Your task to perform on an android device: Search for "razer deathadder" on costco.com, select the first entry, and add it to the cart. Image 0: 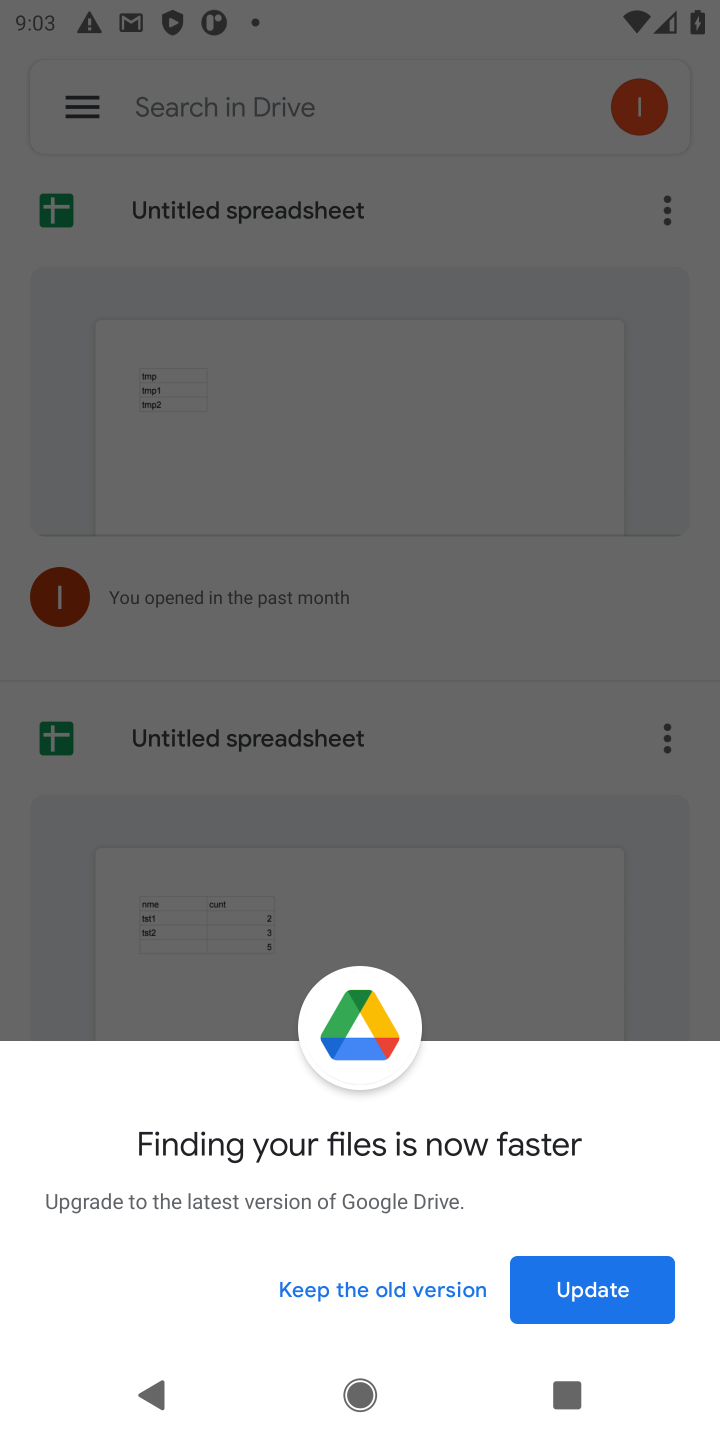
Step 0: press home button
Your task to perform on an android device: Search for "razer deathadder" on costco.com, select the first entry, and add it to the cart. Image 1: 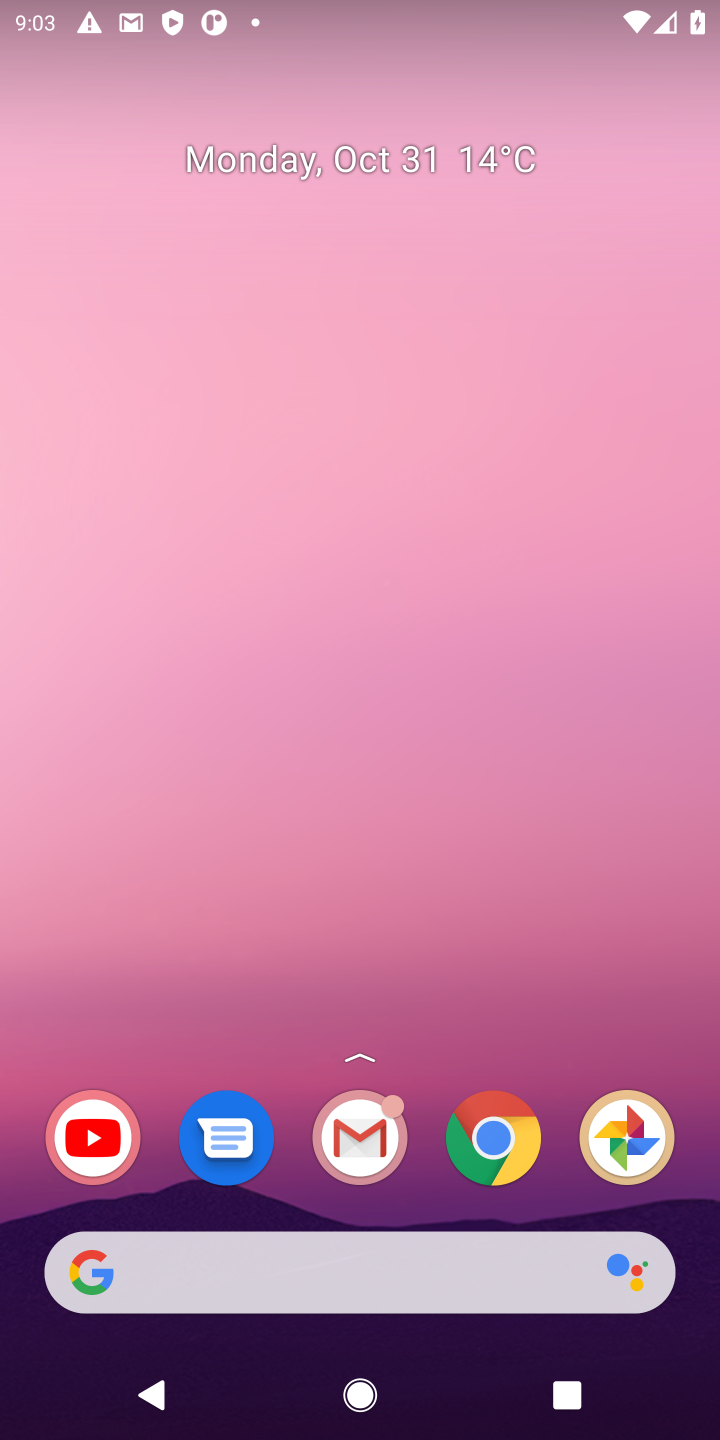
Step 1: click (515, 1153)
Your task to perform on an android device: Search for "razer deathadder" on costco.com, select the first entry, and add it to the cart. Image 2: 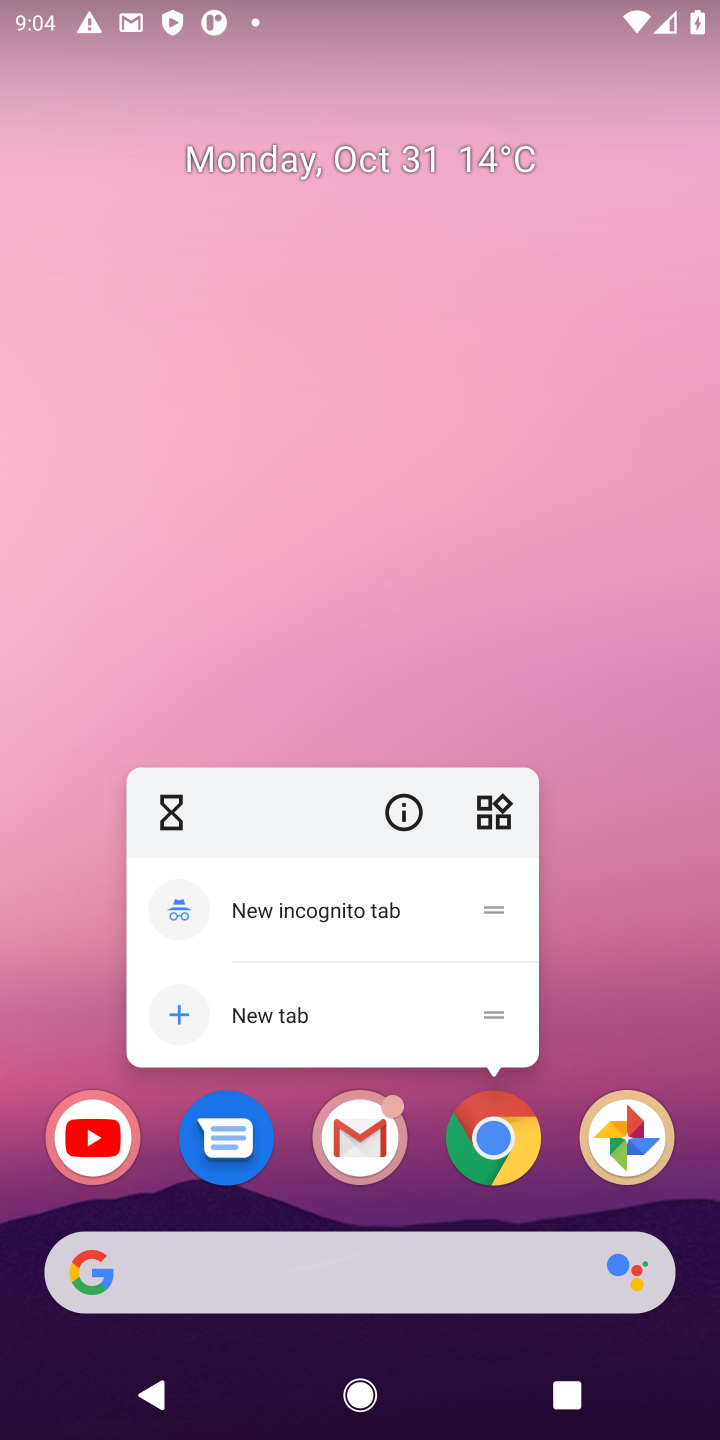
Step 2: click (531, 1159)
Your task to perform on an android device: Search for "razer deathadder" on costco.com, select the first entry, and add it to the cart. Image 3: 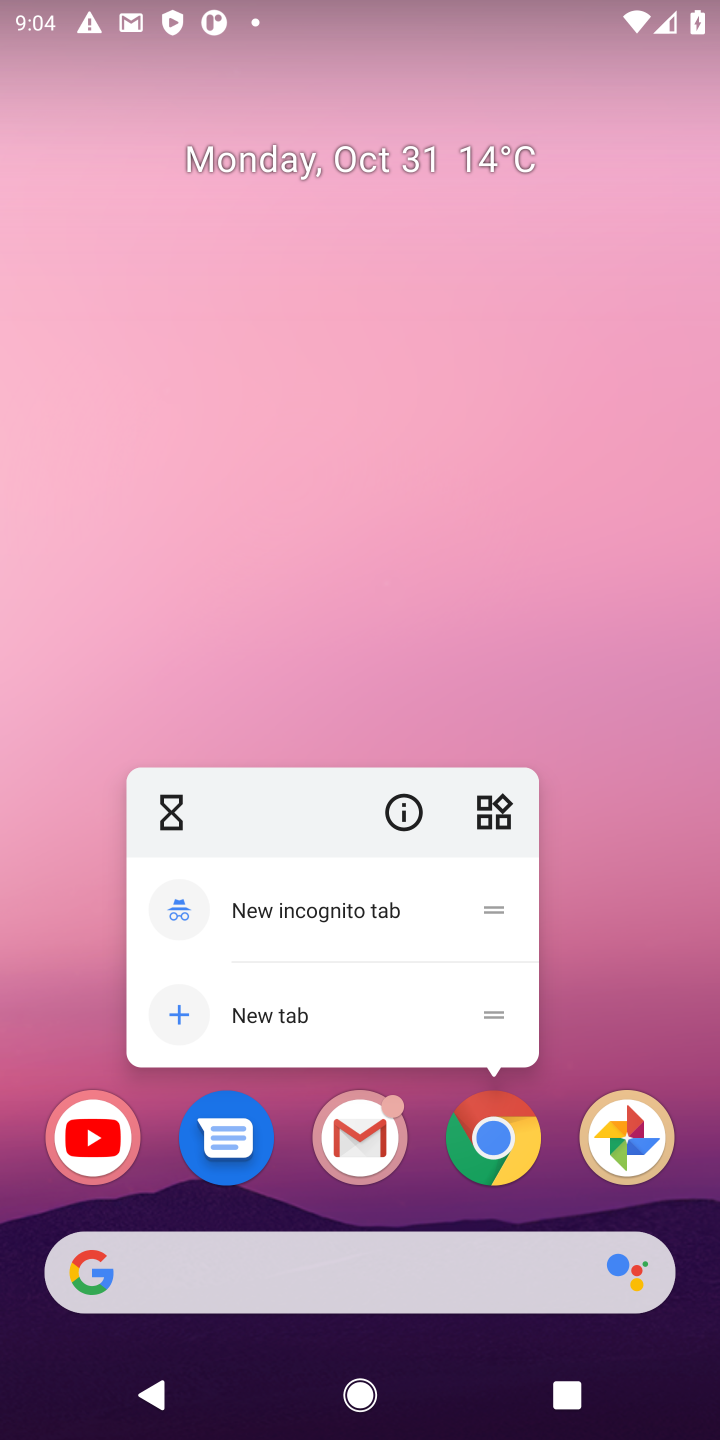
Step 3: click (449, 1146)
Your task to perform on an android device: Search for "razer deathadder" on costco.com, select the first entry, and add it to the cart. Image 4: 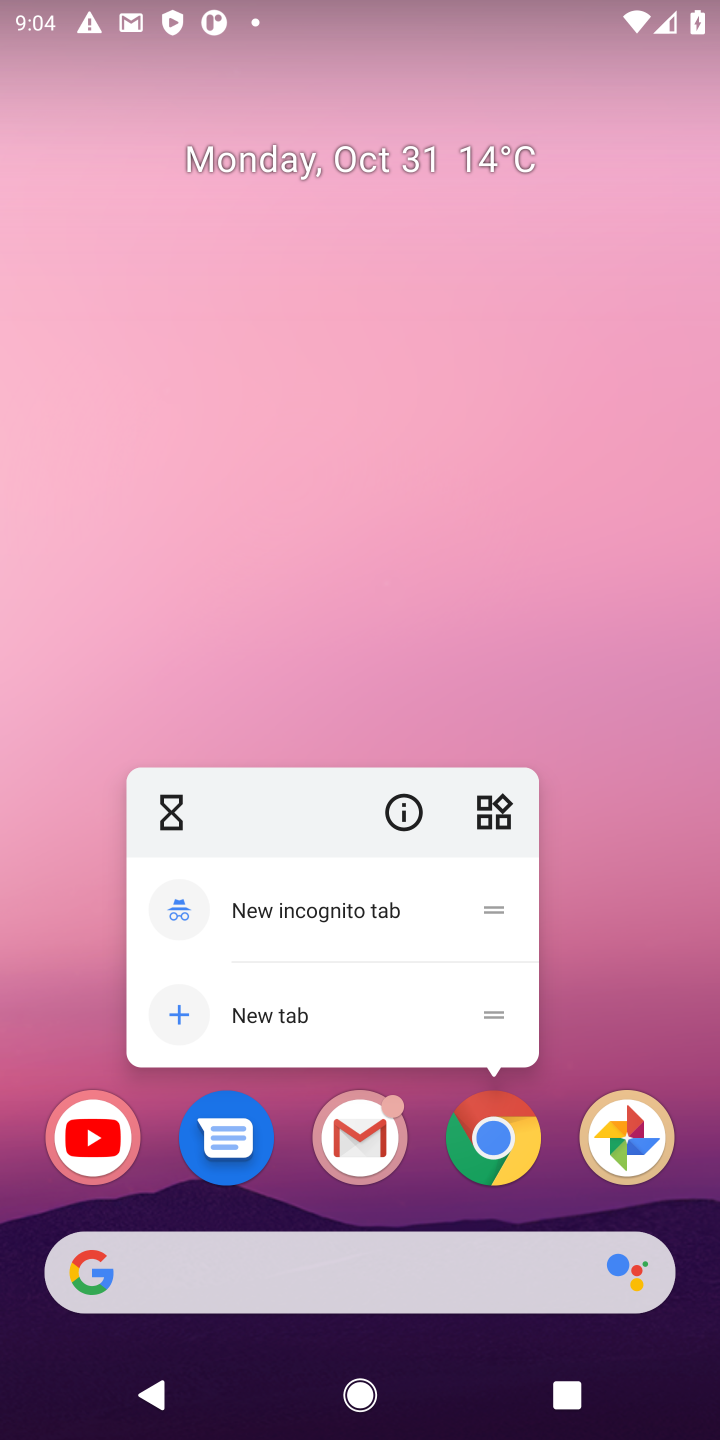
Step 4: click (513, 1125)
Your task to perform on an android device: Search for "razer deathadder" on costco.com, select the first entry, and add it to the cart. Image 5: 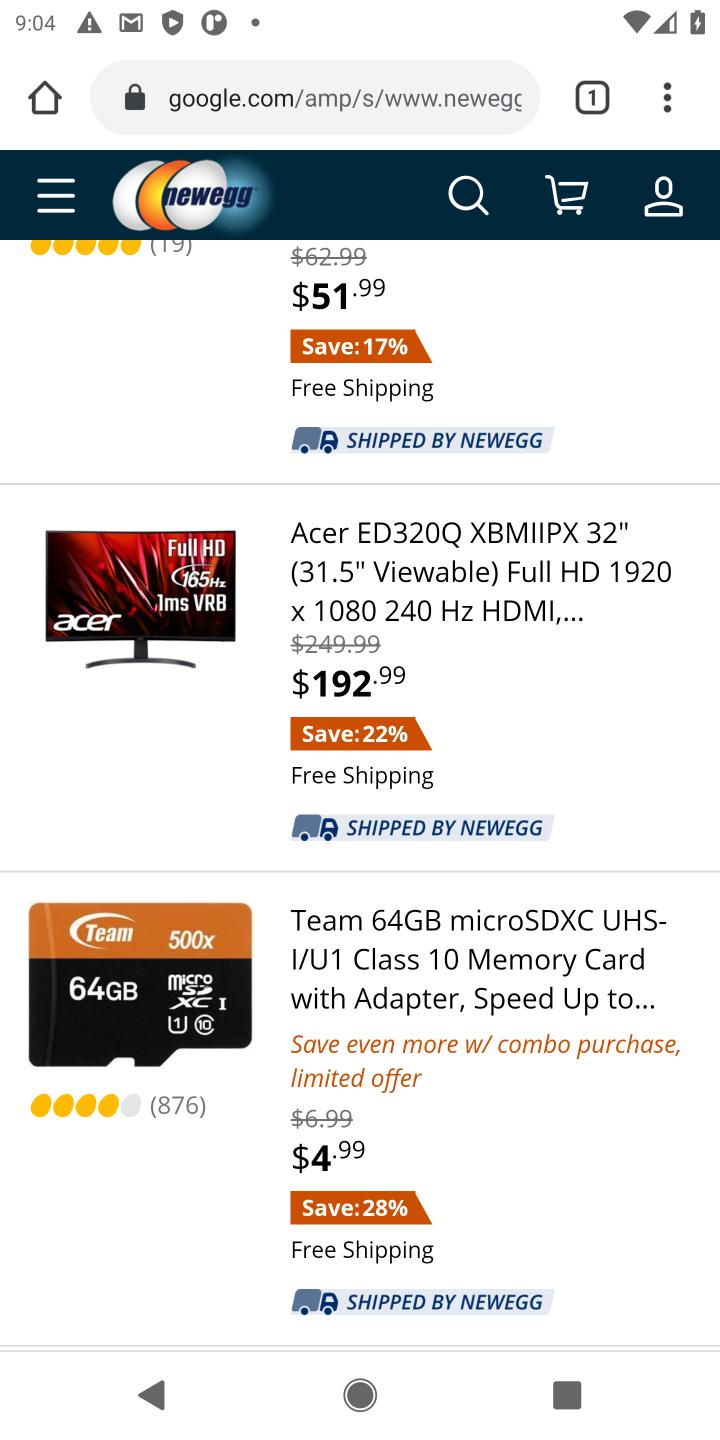
Step 5: click (306, 99)
Your task to perform on an android device: Search for "razer deathadder" on costco.com, select the first entry, and add it to the cart. Image 6: 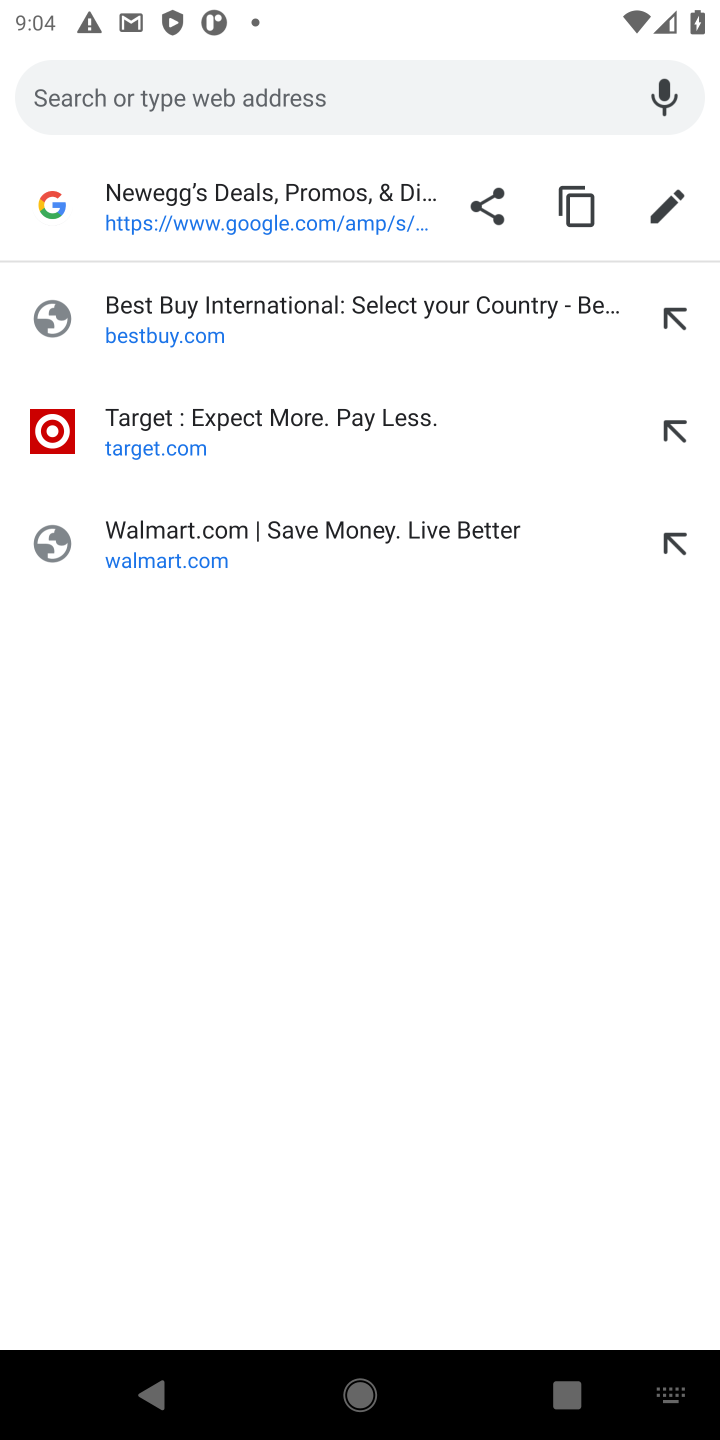
Step 6: type "costco.com"
Your task to perform on an android device: Search for "razer deathadder" on costco.com, select the first entry, and add it to the cart. Image 7: 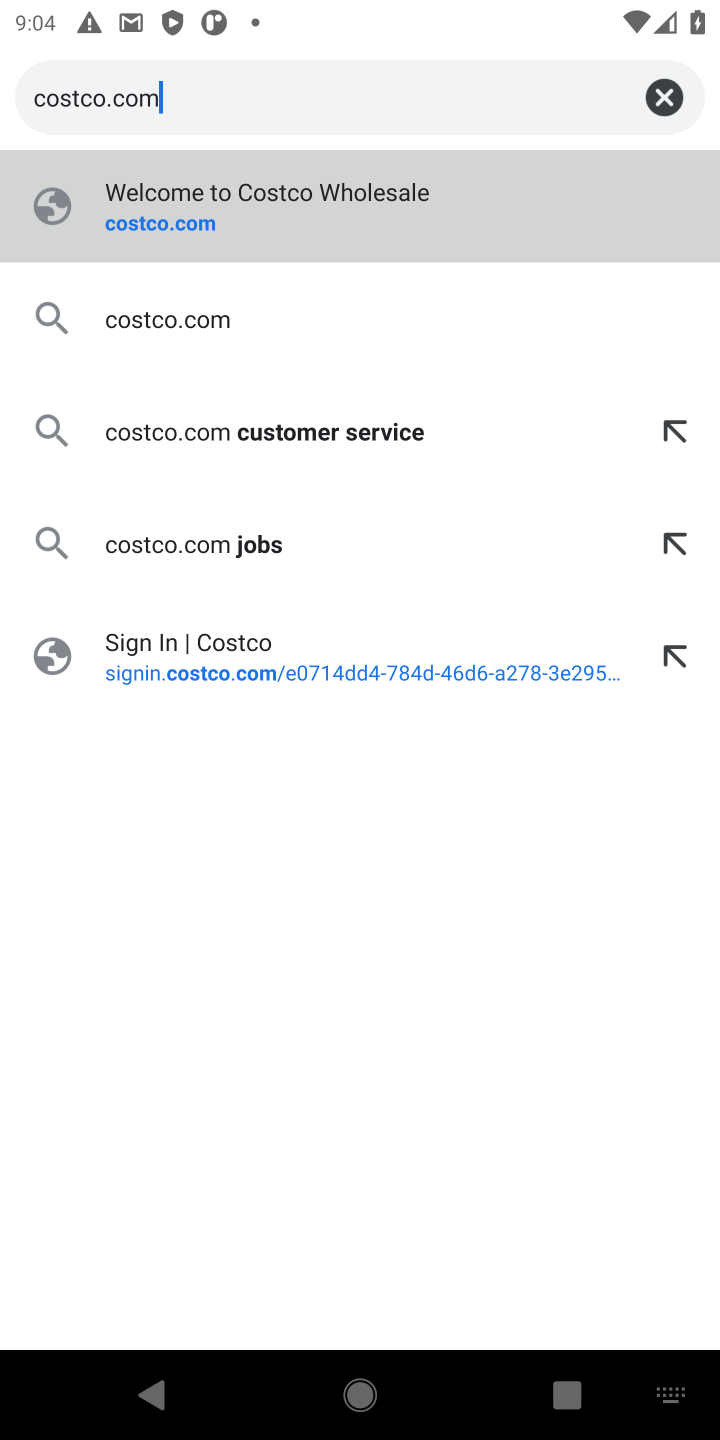
Step 7: click (127, 216)
Your task to perform on an android device: Search for "razer deathadder" on costco.com, select the first entry, and add it to the cart. Image 8: 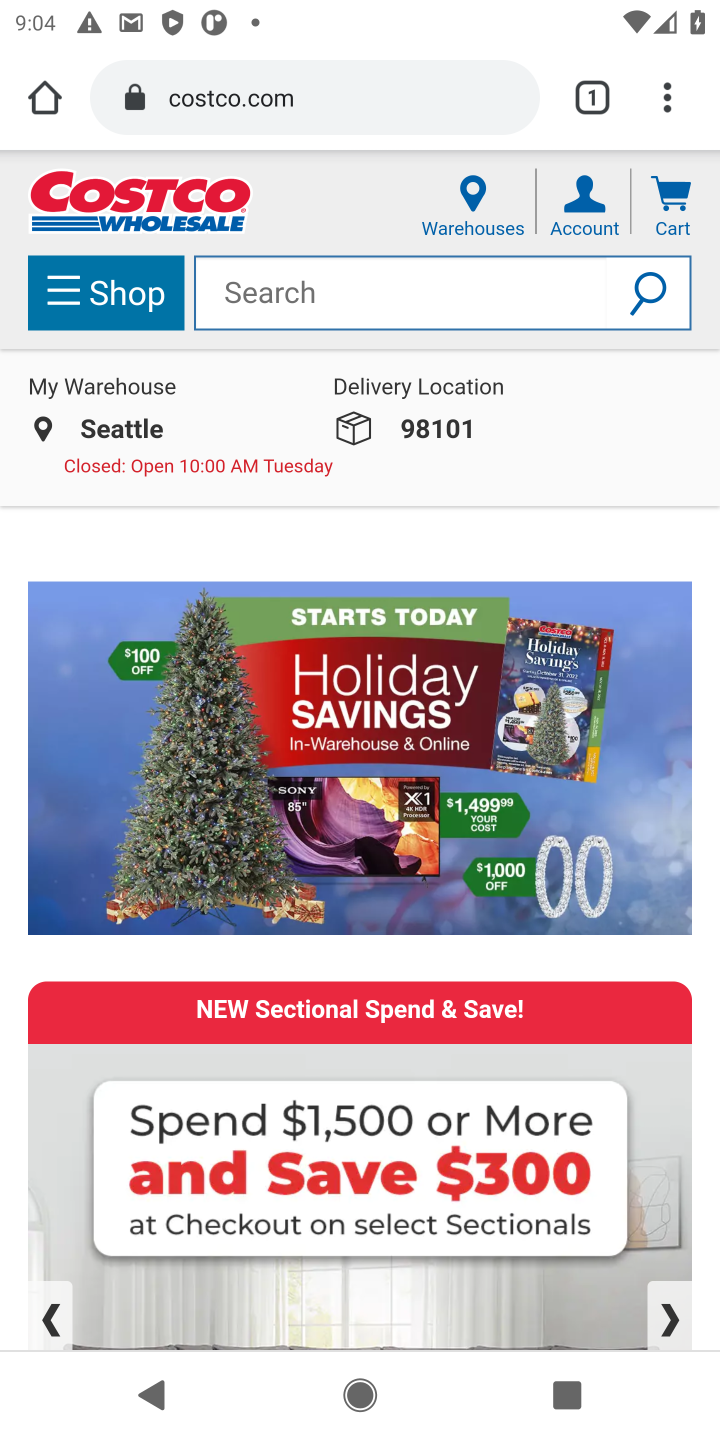
Step 8: click (267, 287)
Your task to perform on an android device: Search for "razer deathadder" on costco.com, select the first entry, and add it to the cart. Image 9: 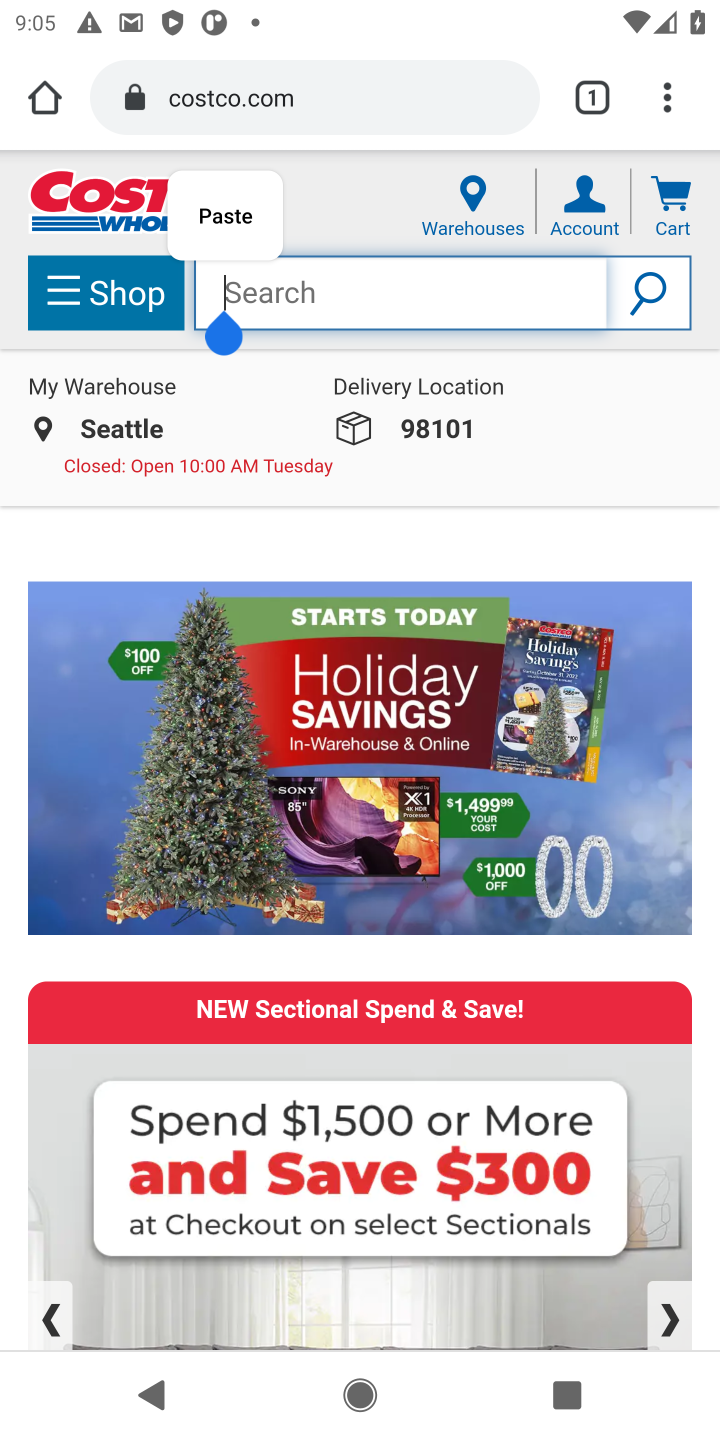
Step 9: type "razer deathdder"
Your task to perform on an android device: Search for "razer deathadder" on costco.com, select the first entry, and add it to the cart. Image 10: 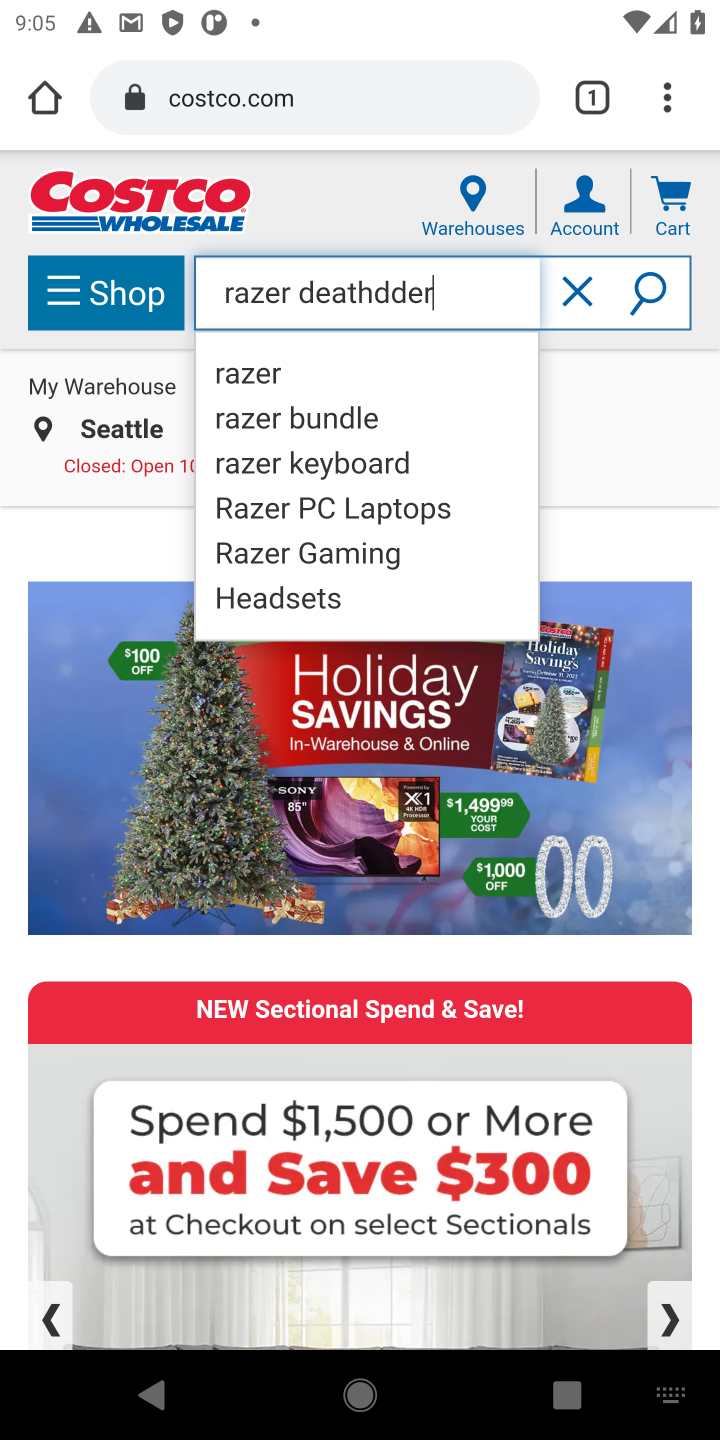
Step 10: click (247, 370)
Your task to perform on an android device: Search for "razer deathadder" on costco.com, select the first entry, and add it to the cart. Image 11: 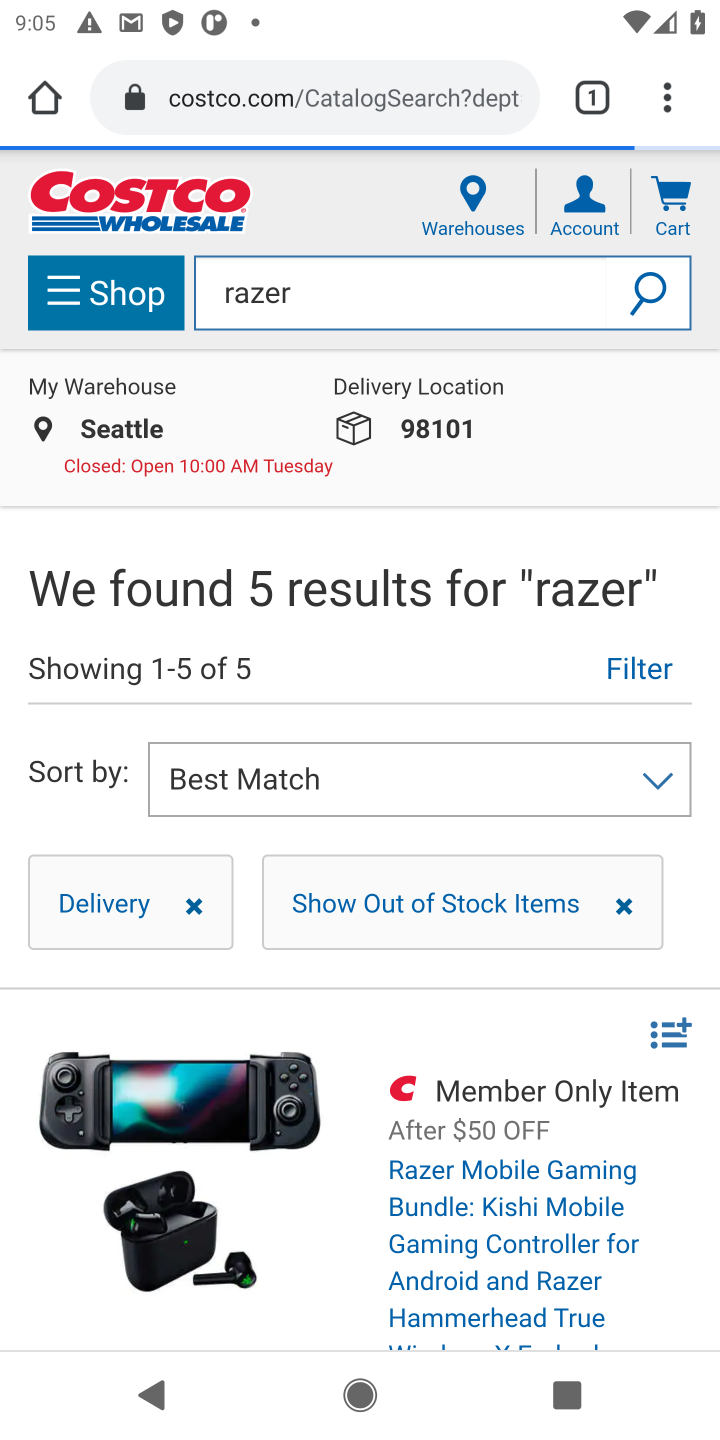
Step 11: drag from (324, 991) to (292, 557)
Your task to perform on an android device: Search for "razer deathadder" on costco.com, select the first entry, and add it to the cart. Image 12: 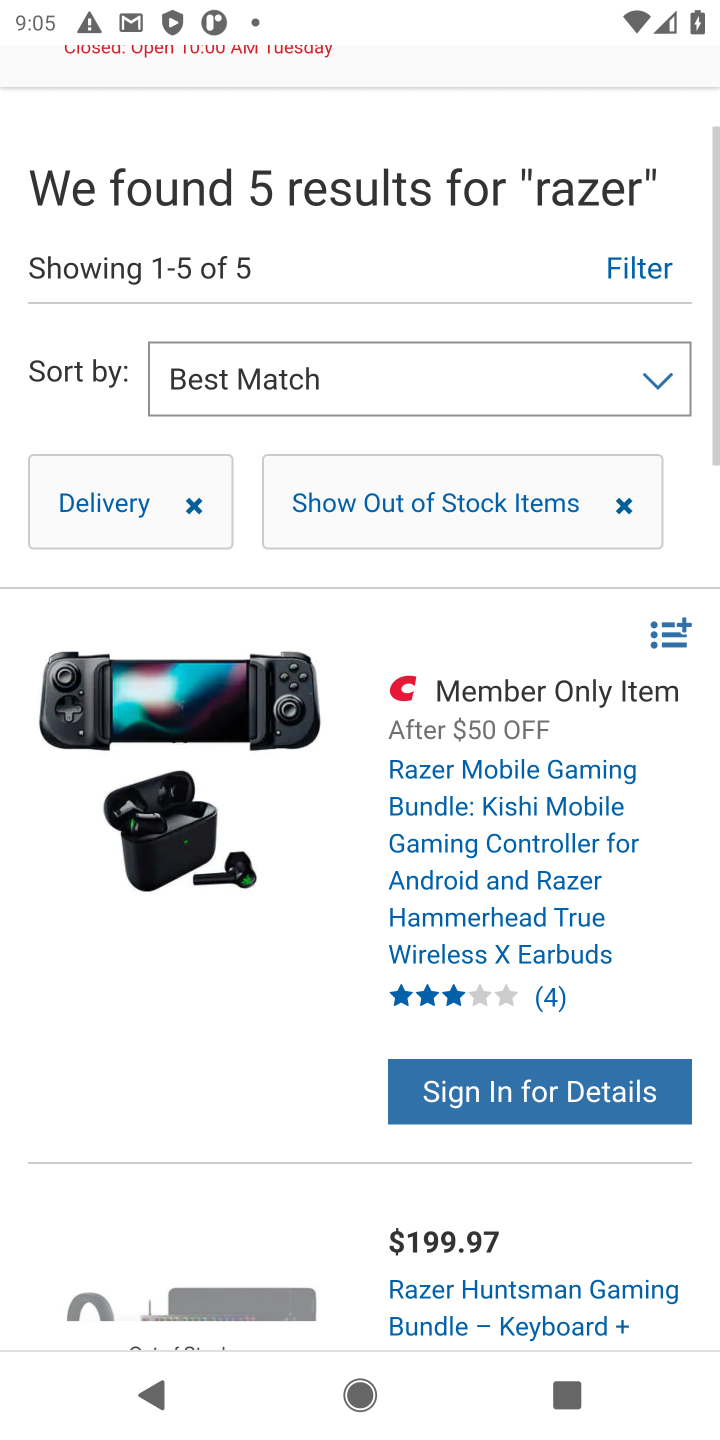
Step 12: drag from (233, 989) to (171, 678)
Your task to perform on an android device: Search for "razer deathadder" on costco.com, select the first entry, and add it to the cart. Image 13: 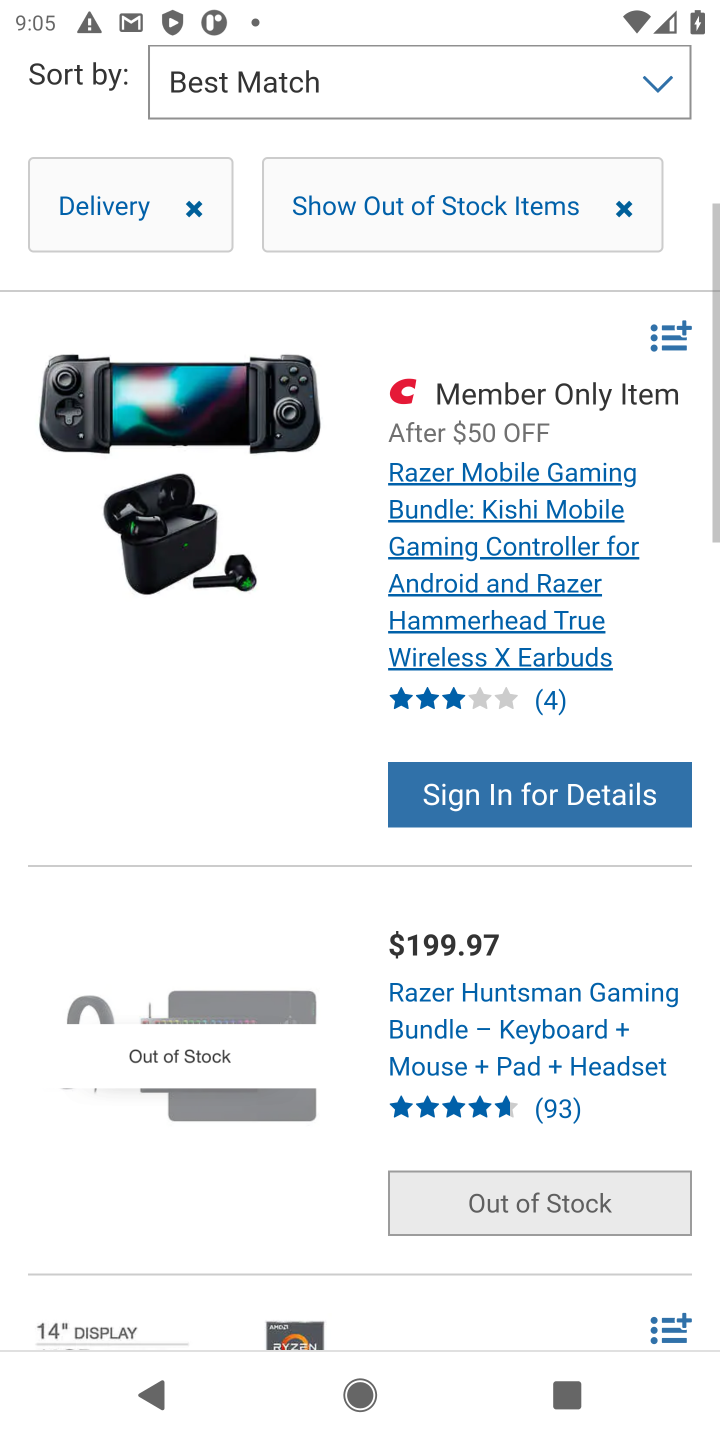
Step 13: drag from (331, 1022) to (310, 722)
Your task to perform on an android device: Search for "razer deathadder" on costco.com, select the first entry, and add it to the cart. Image 14: 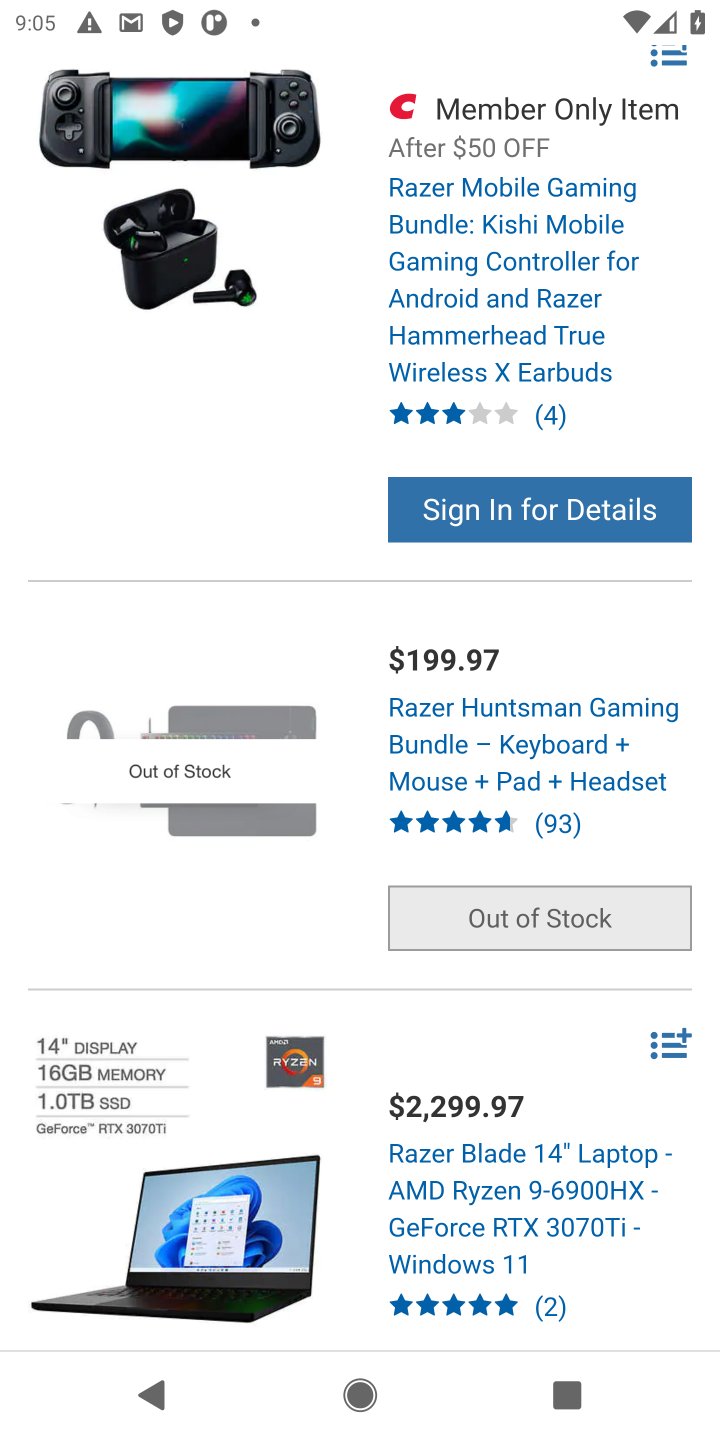
Step 14: drag from (321, 1051) to (291, 751)
Your task to perform on an android device: Search for "razer deathadder" on costco.com, select the first entry, and add it to the cart. Image 15: 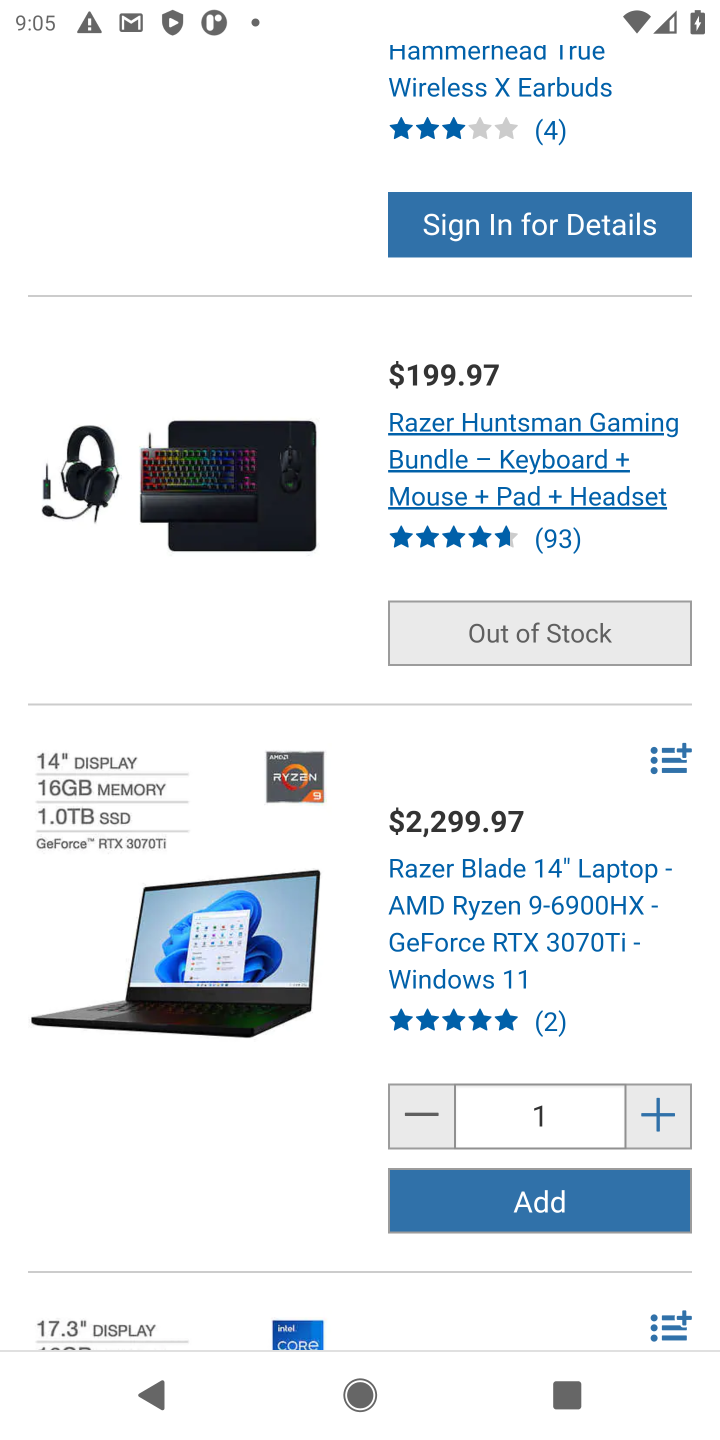
Step 15: drag from (399, 1069) to (343, 788)
Your task to perform on an android device: Search for "razer deathadder" on costco.com, select the first entry, and add it to the cart. Image 16: 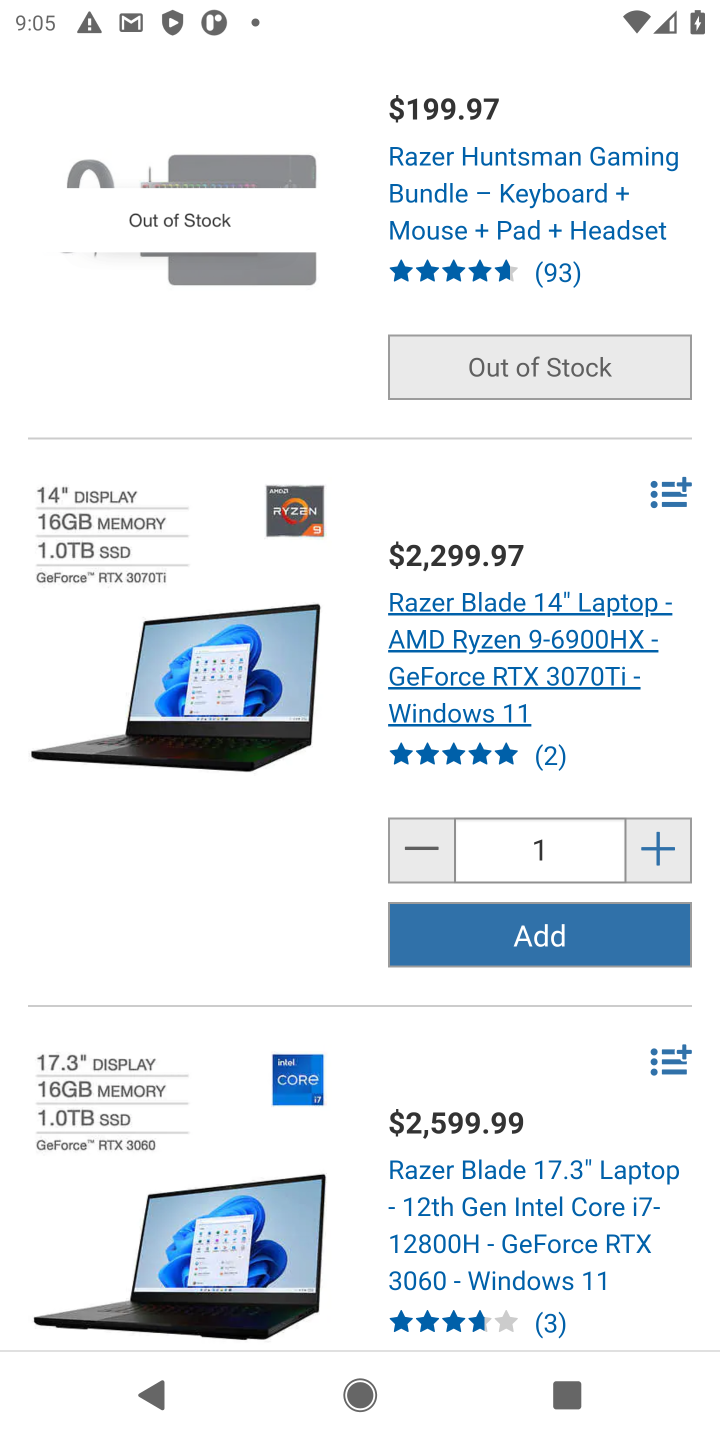
Step 16: click (453, 1154)
Your task to perform on an android device: Search for "razer deathadder" on costco.com, select the first entry, and add it to the cart. Image 17: 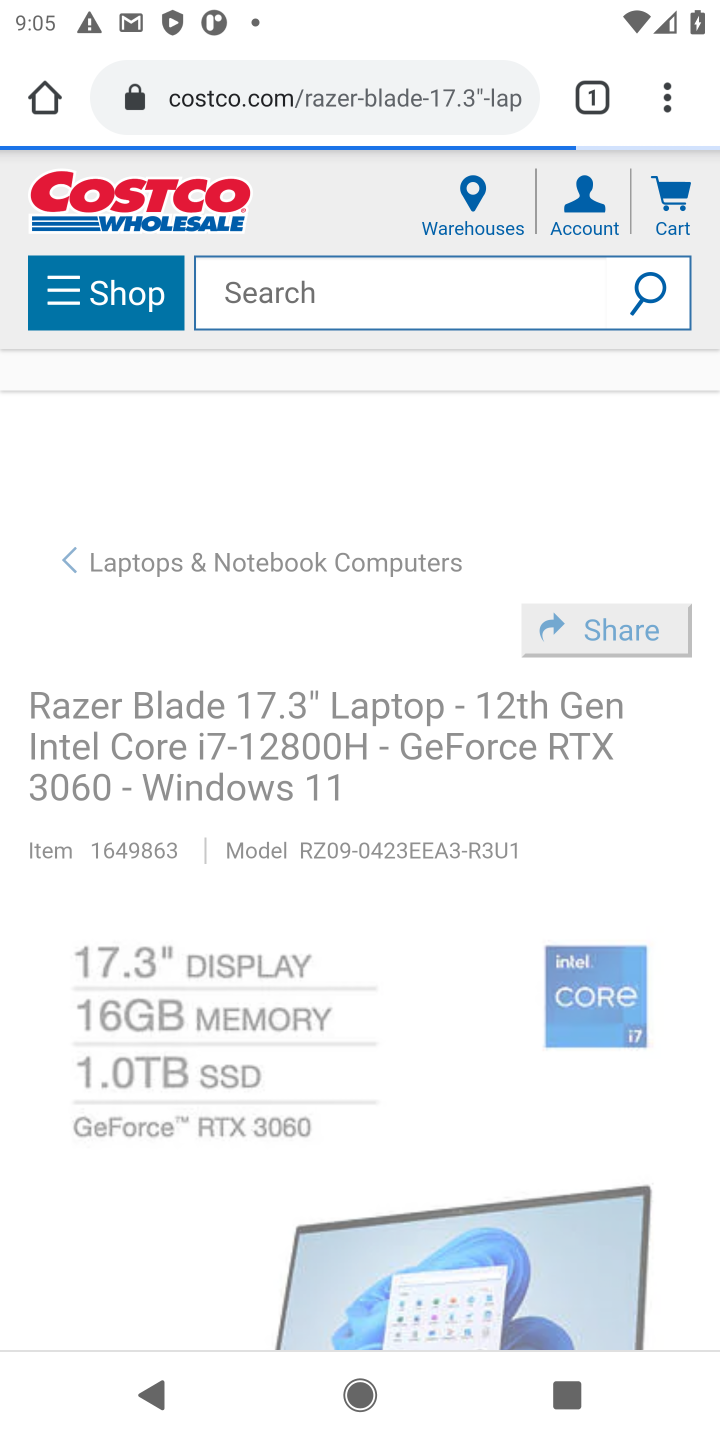
Step 17: drag from (221, 1050) to (176, 655)
Your task to perform on an android device: Search for "razer deathadder" on costco.com, select the first entry, and add it to the cart. Image 18: 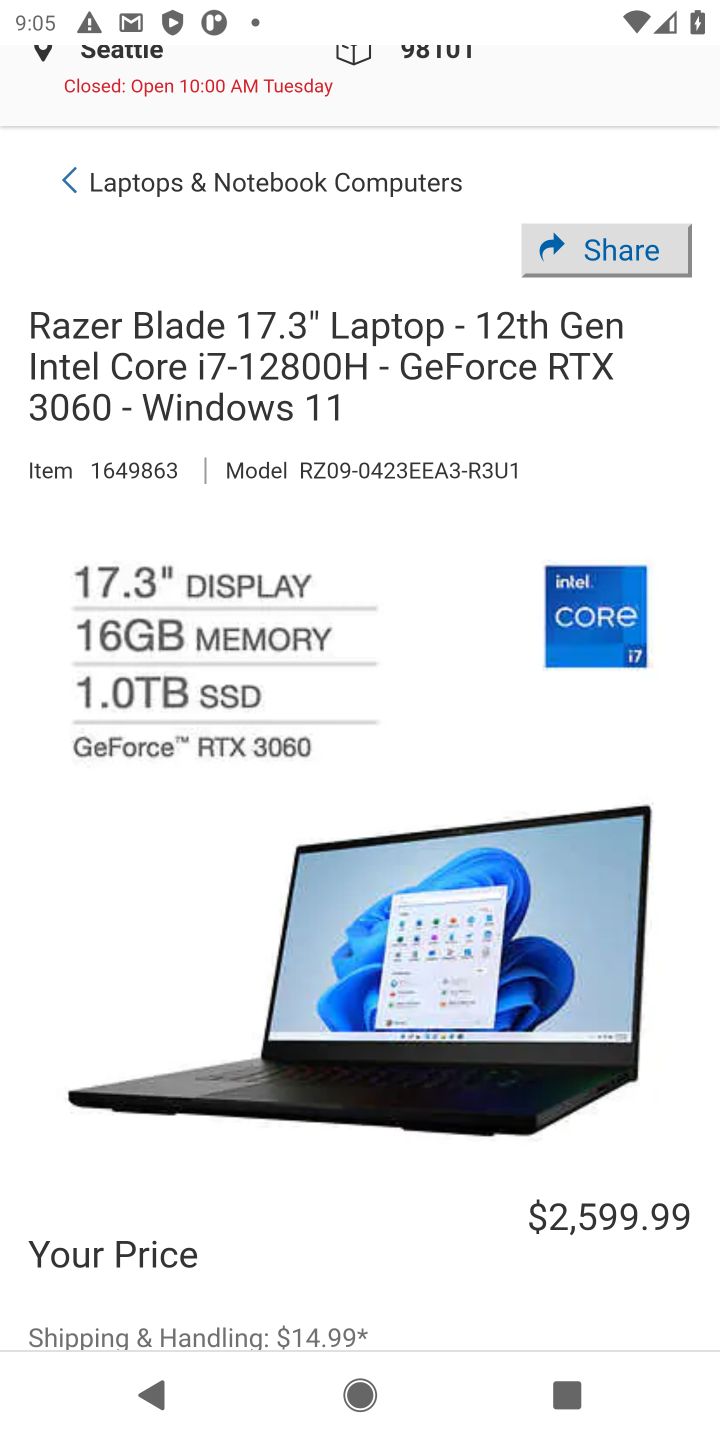
Step 18: drag from (302, 1114) to (277, 636)
Your task to perform on an android device: Search for "razer deathadder" on costco.com, select the first entry, and add it to the cart. Image 19: 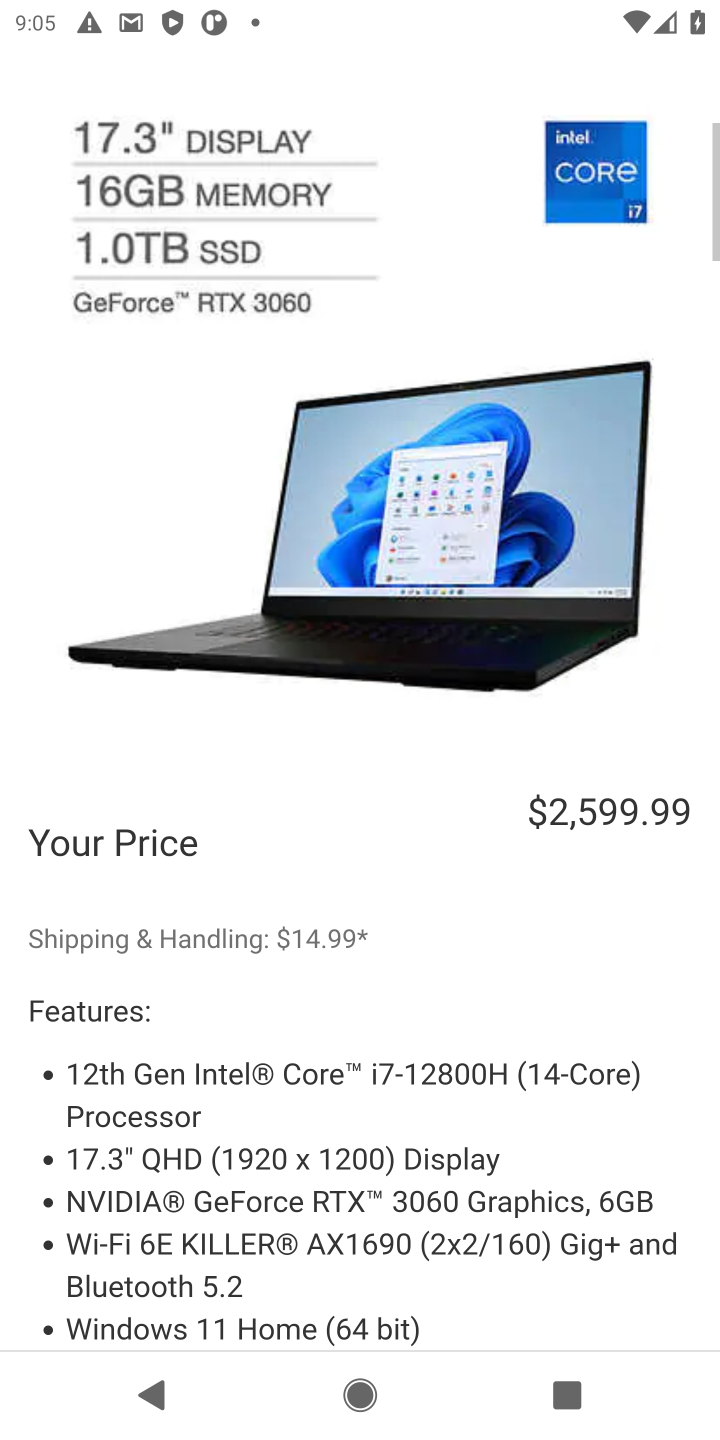
Step 19: drag from (307, 1137) to (272, 671)
Your task to perform on an android device: Search for "razer deathadder" on costco.com, select the first entry, and add it to the cart. Image 20: 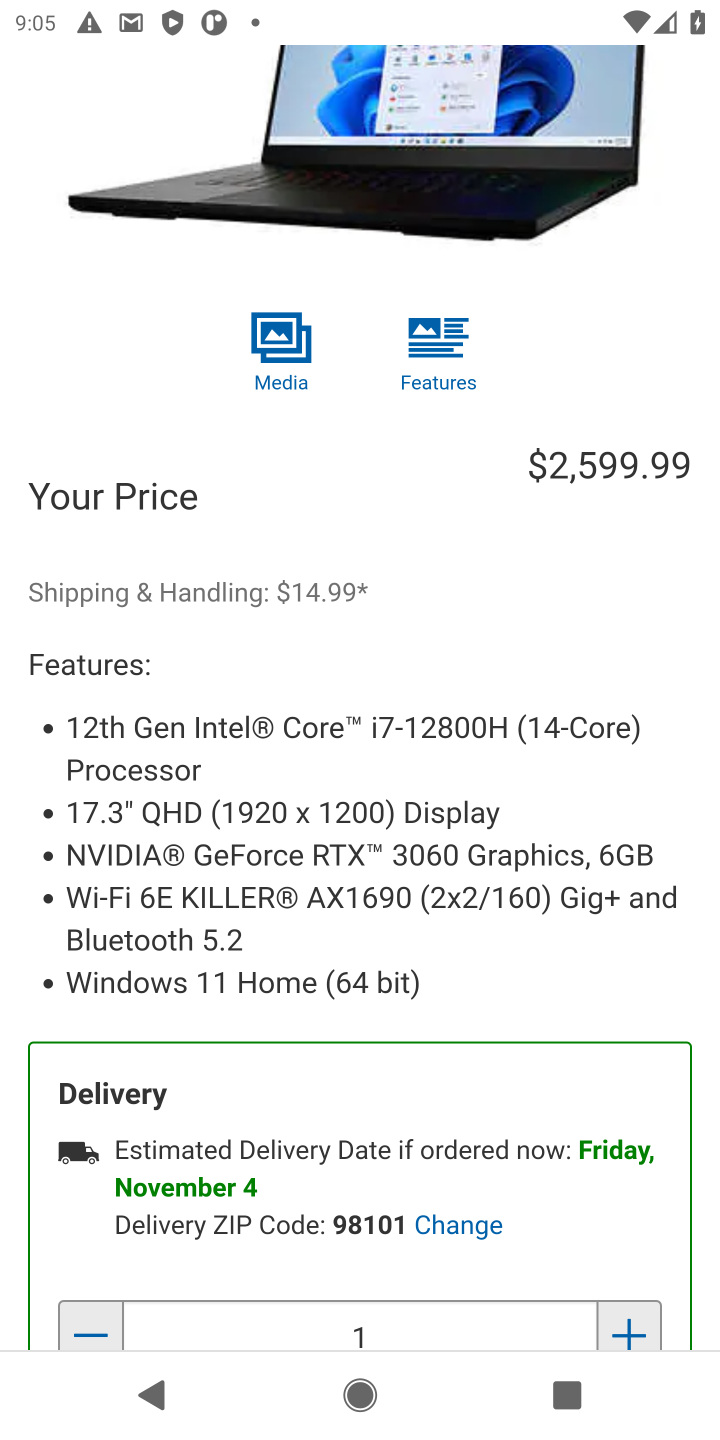
Step 20: drag from (456, 1035) to (445, 635)
Your task to perform on an android device: Search for "razer deathadder" on costco.com, select the first entry, and add it to the cart. Image 21: 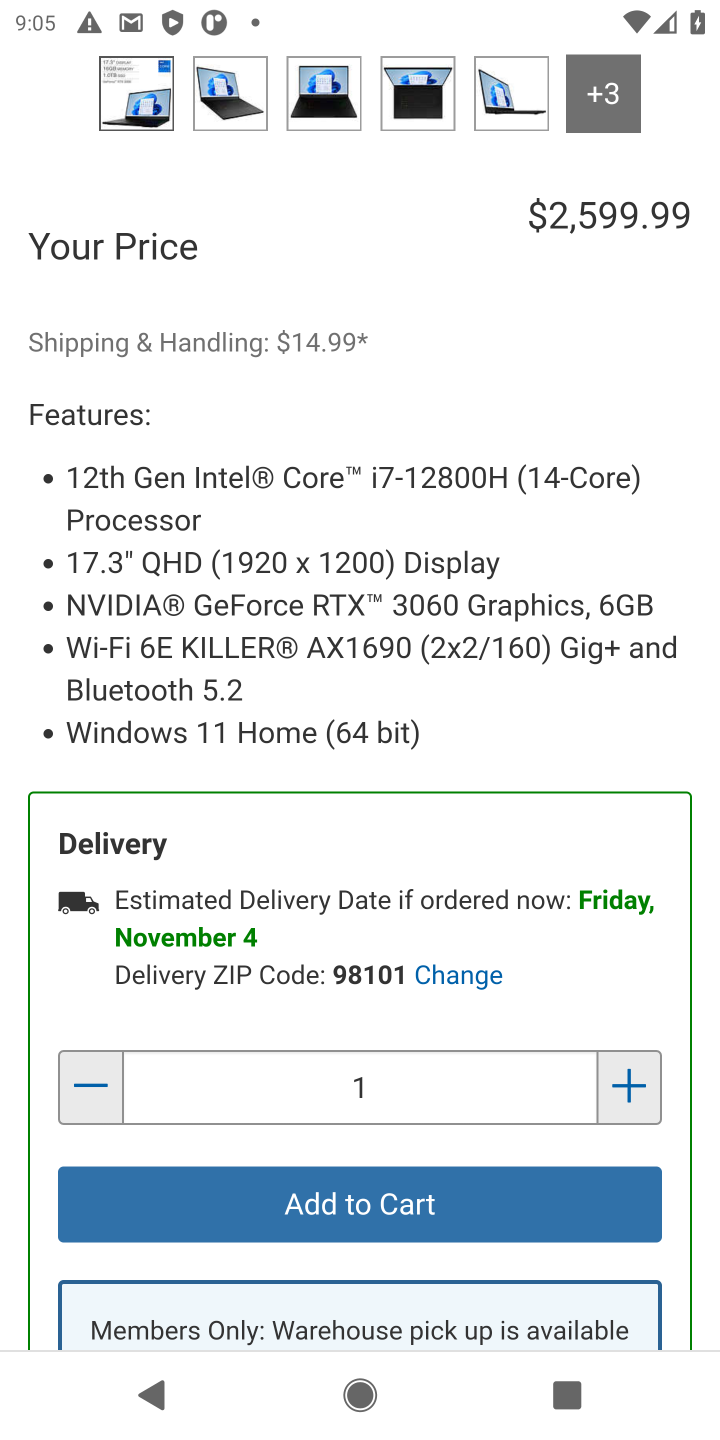
Step 21: click (431, 1201)
Your task to perform on an android device: Search for "razer deathadder" on costco.com, select the first entry, and add it to the cart. Image 22: 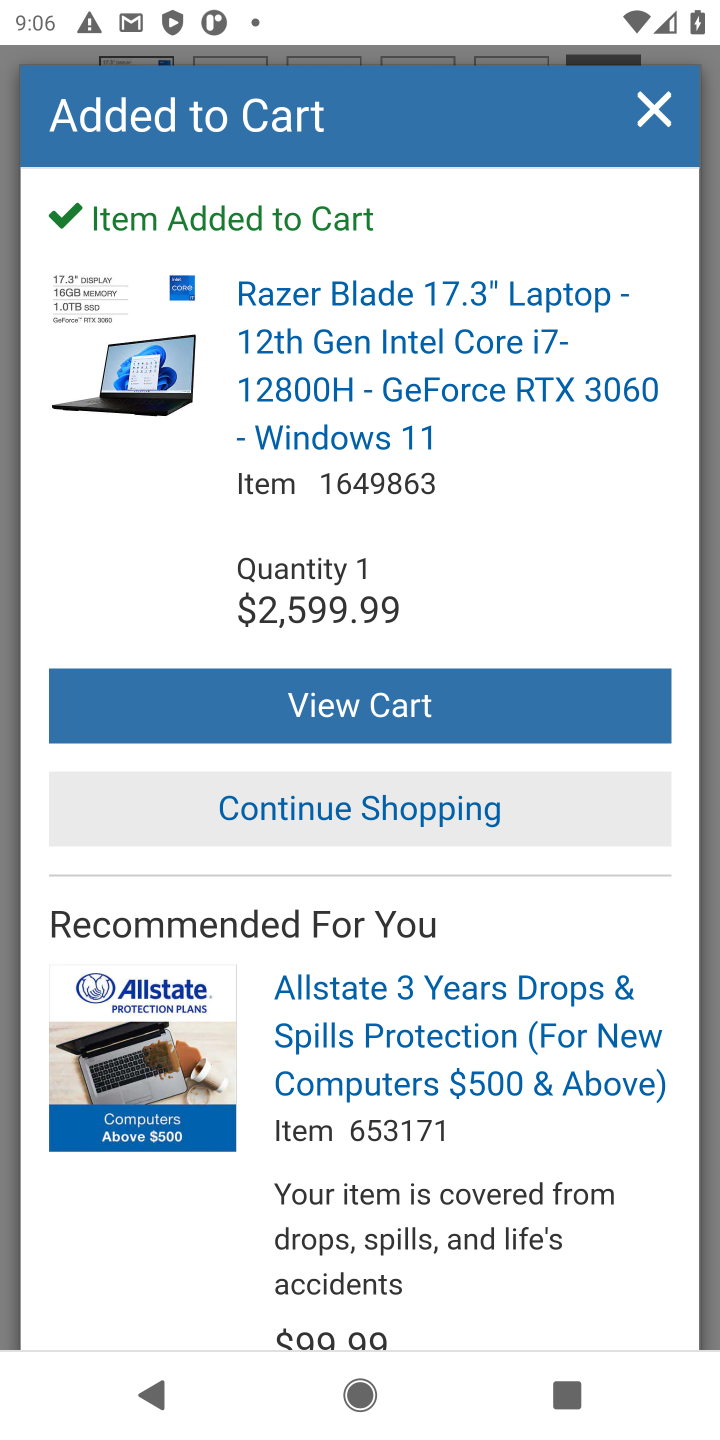
Step 22: click (346, 708)
Your task to perform on an android device: Search for "razer deathadder" on costco.com, select the first entry, and add it to the cart. Image 23: 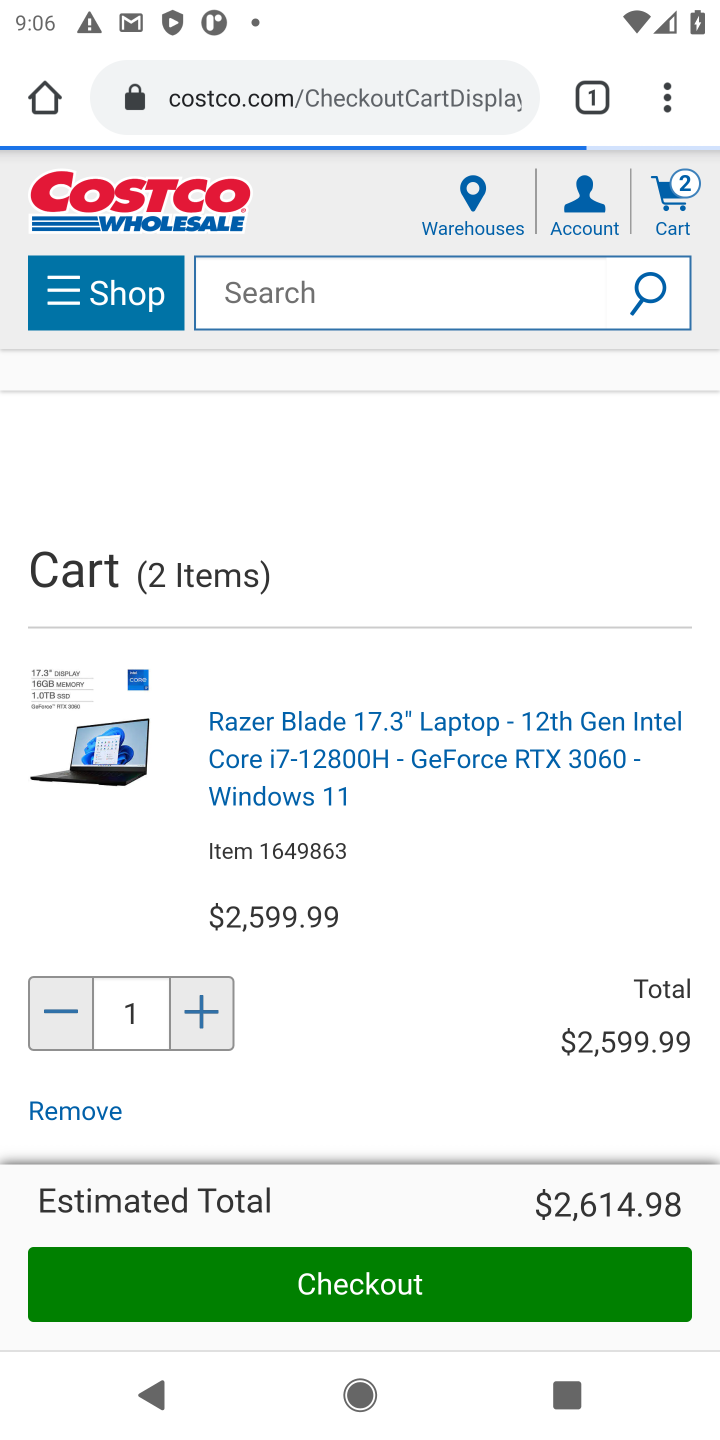
Step 23: task complete